Your task to perform on an android device: What is the recent news? Image 0: 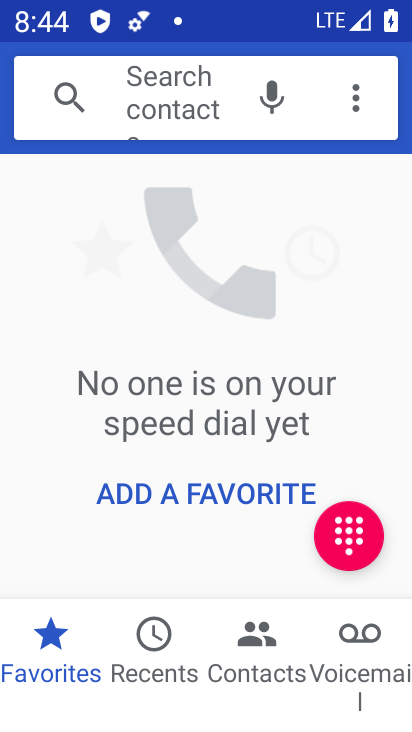
Step 0: press home button
Your task to perform on an android device: What is the recent news? Image 1: 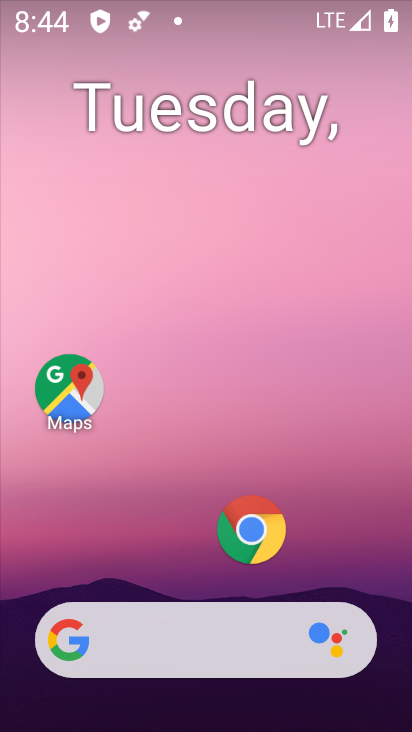
Step 1: task complete